Your task to perform on an android device: clear history in the chrome app Image 0: 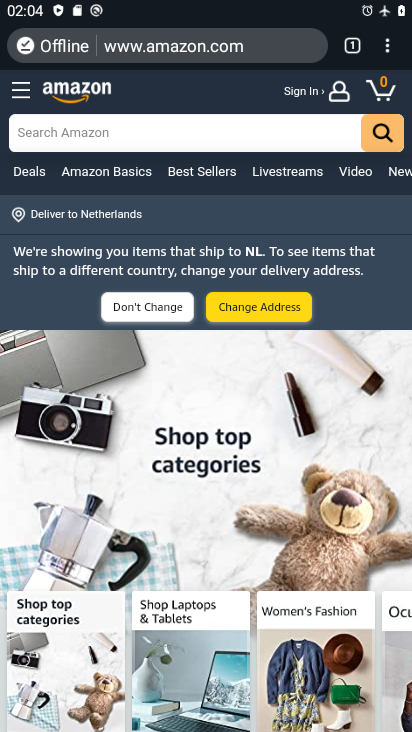
Step 0: click (381, 44)
Your task to perform on an android device: clear history in the chrome app Image 1: 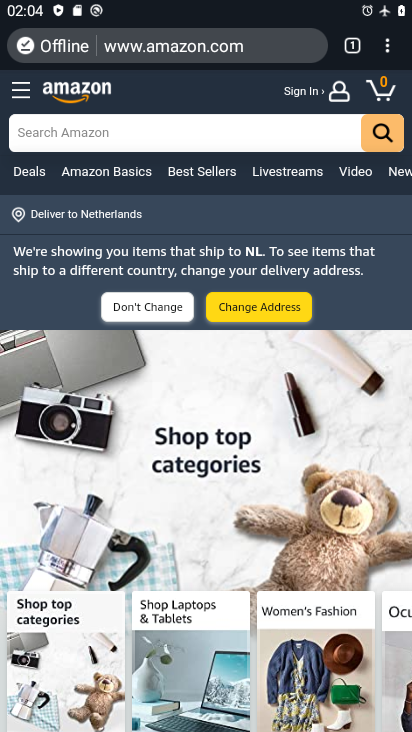
Step 1: drag from (397, 52) to (266, 252)
Your task to perform on an android device: clear history in the chrome app Image 2: 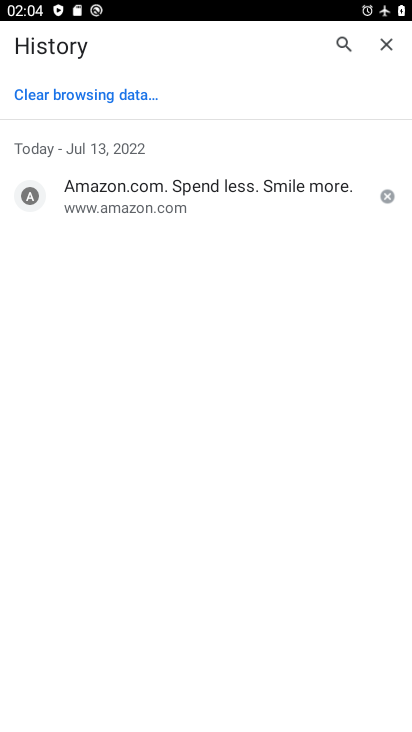
Step 2: click (142, 92)
Your task to perform on an android device: clear history in the chrome app Image 3: 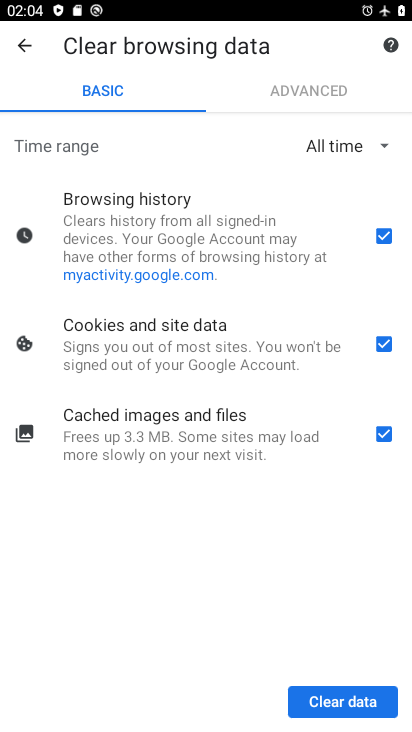
Step 3: click (366, 695)
Your task to perform on an android device: clear history in the chrome app Image 4: 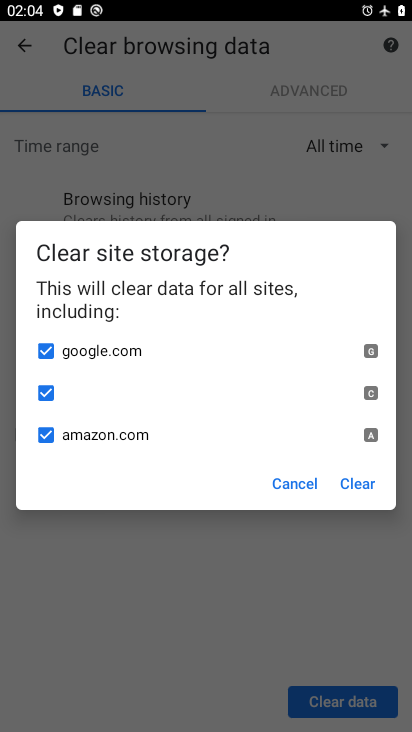
Step 4: click (359, 480)
Your task to perform on an android device: clear history in the chrome app Image 5: 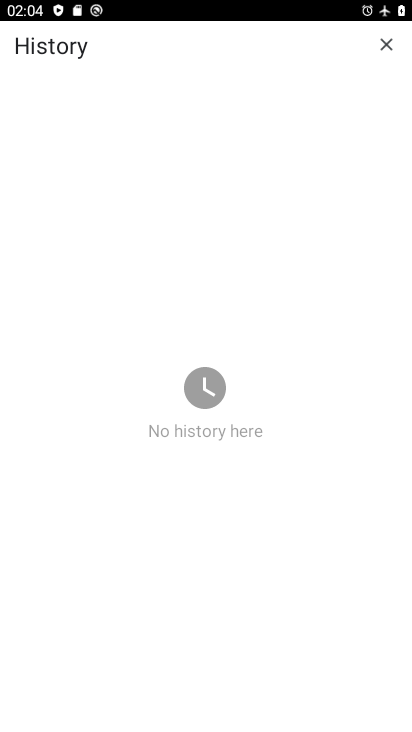
Step 5: task complete